Your task to perform on an android device: Open calendar and show me the third week of next month Image 0: 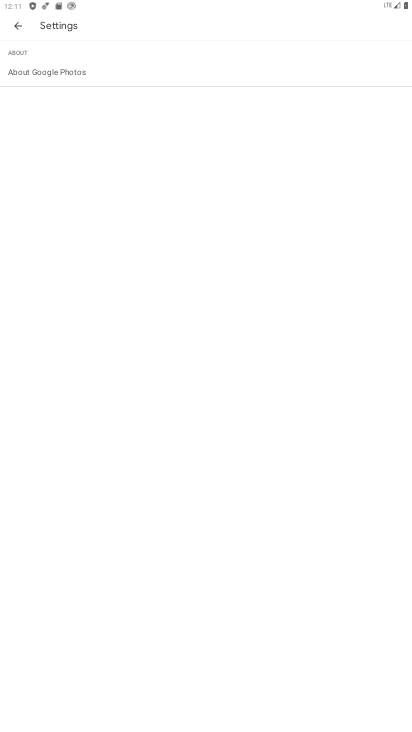
Step 0: press home button
Your task to perform on an android device: Open calendar and show me the third week of next month Image 1: 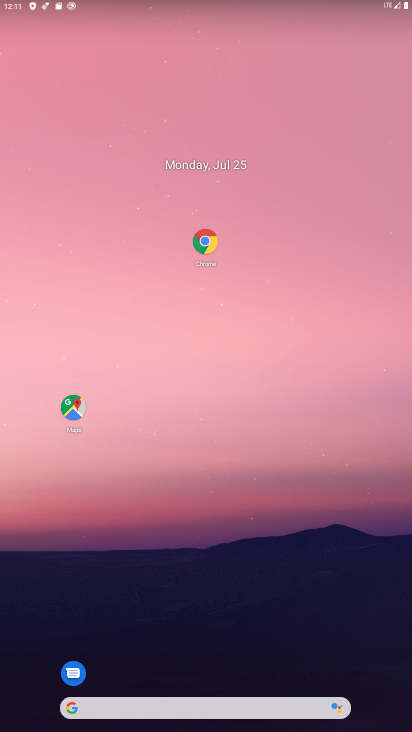
Step 1: drag from (191, 592) to (265, 67)
Your task to perform on an android device: Open calendar and show me the third week of next month Image 2: 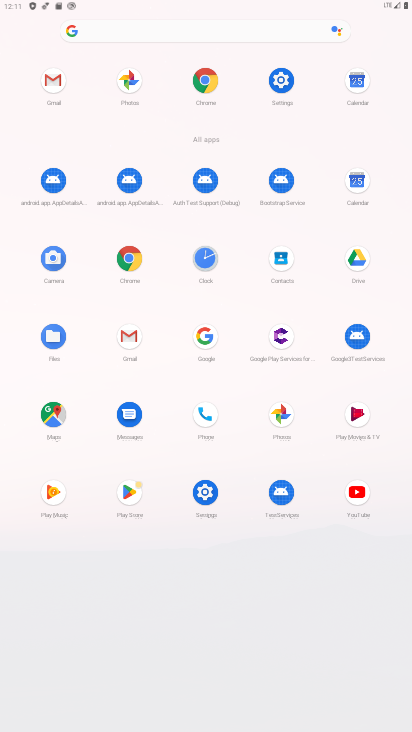
Step 2: click (360, 179)
Your task to perform on an android device: Open calendar and show me the third week of next month Image 3: 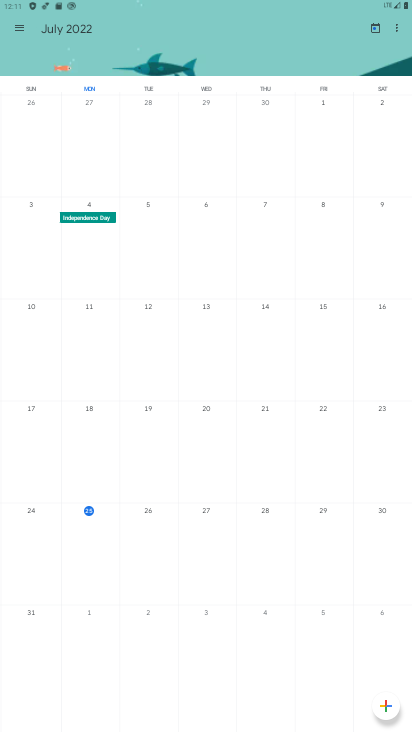
Step 3: drag from (393, 440) to (51, 437)
Your task to perform on an android device: Open calendar and show me the third week of next month Image 4: 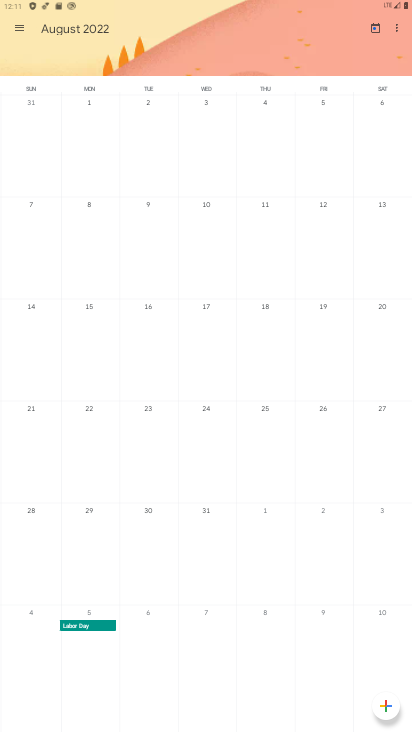
Step 4: click (203, 300)
Your task to perform on an android device: Open calendar and show me the third week of next month Image 5: 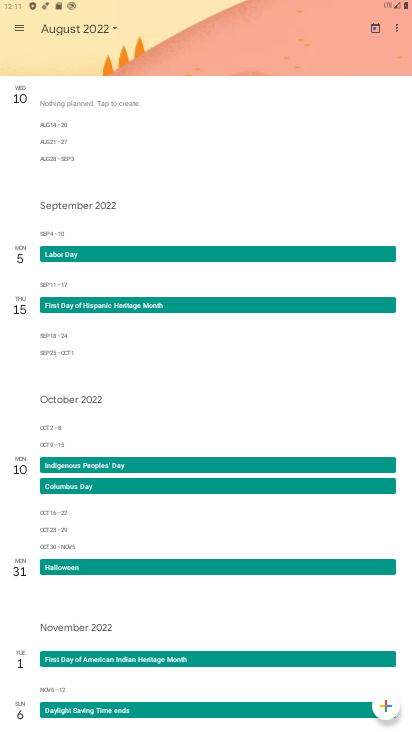
Step 5: click (118, 23)
Your task to perform on an android device: Open calendar and show me the third week of next month Image 6: 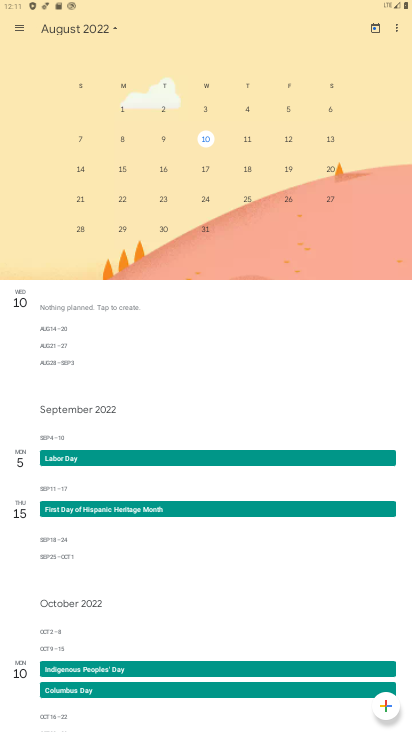
Step 6: click (15, 32)
Your task to perform on an android device: Open calendar and show me the third week of next month Image 7: 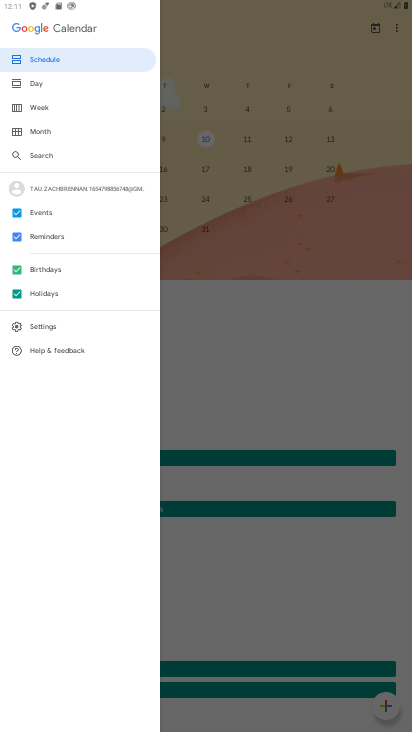
Step 7: click (38, 104)
Your task to perform on an android device: Open calendar and show me the third week of next month Image 8: 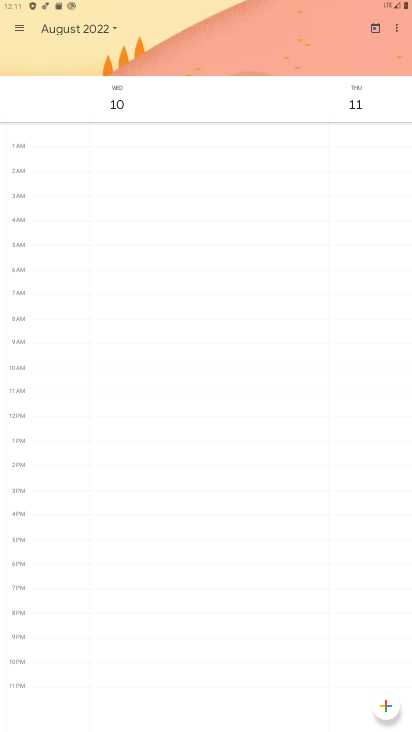
Step 8: task complete